Your task to perform on an android device: What's the weather going to be tomorrow? Image 0: 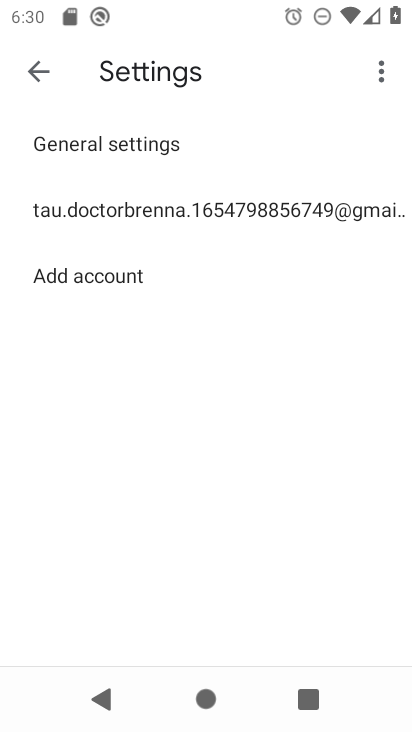
Step 0: press home button
Your task to perform on an android device: What's the weather going to be tomorrow? Image 1: 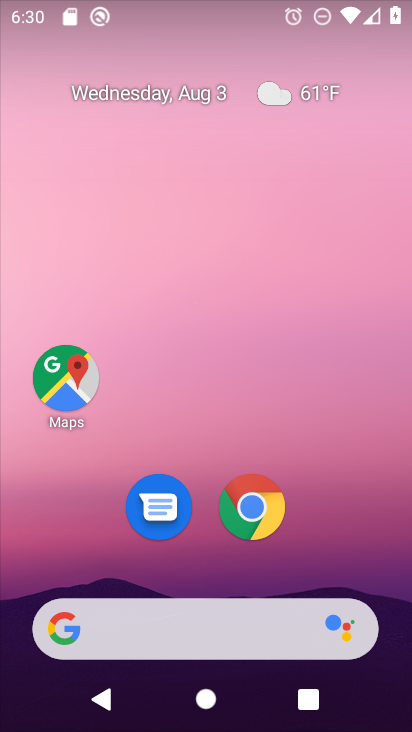
Step 1: drag from (320, 570) to (356, 39)
Your task to perform on an android device: What's the weather going to be tomorrow? Image 2: 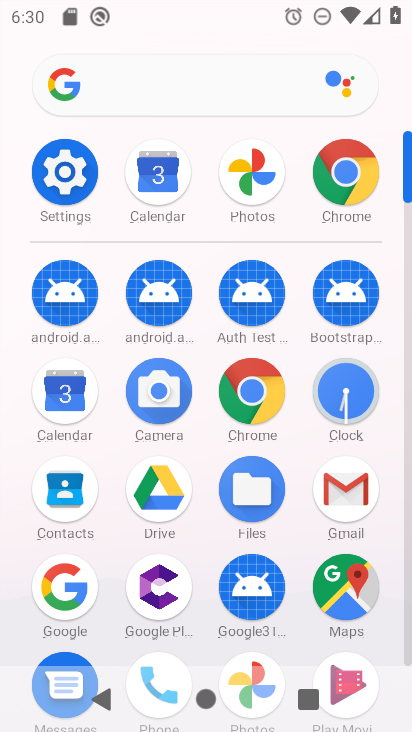
Step 2: press home button
Your task to perform on an android device: What's the weather going to be tomorrow? Image 3: 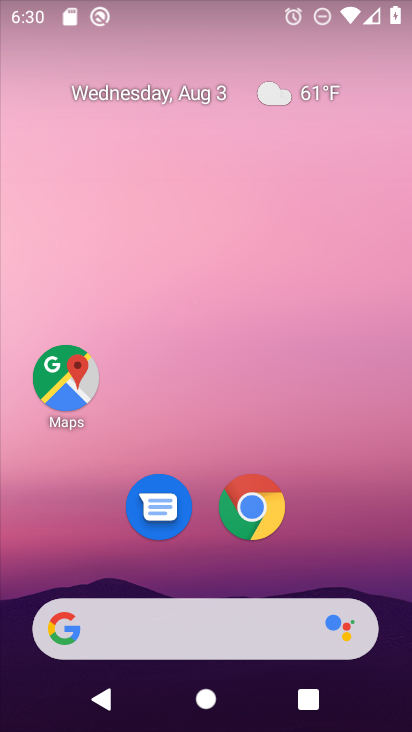
Step 3: click (299, 95)
Your task to perform on an android device: What's the weather going to be tomorrow? Image 4: 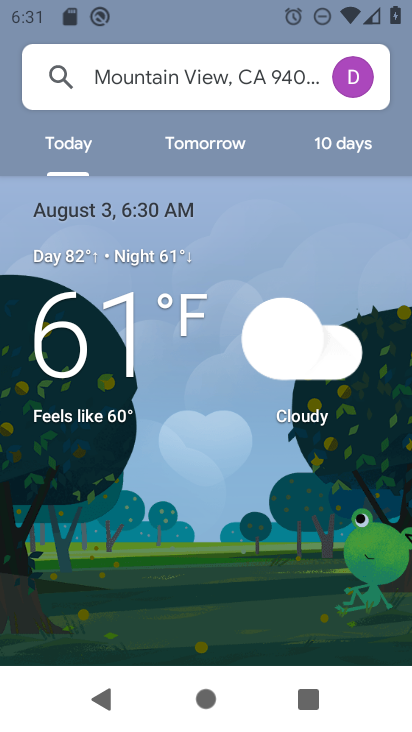
Step 4: click (224, 138)
Your task to perform on an android device: What's the weather going to be tomorrow? Image 5: 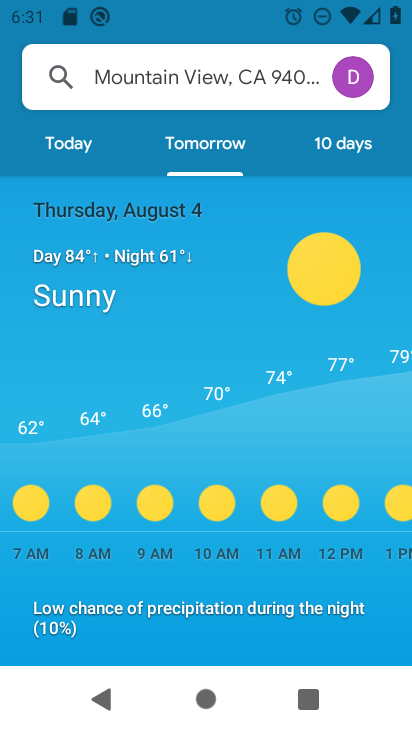
Step 5: task complete